Your task to perform on an android device: empty trash in google photos Image 0: 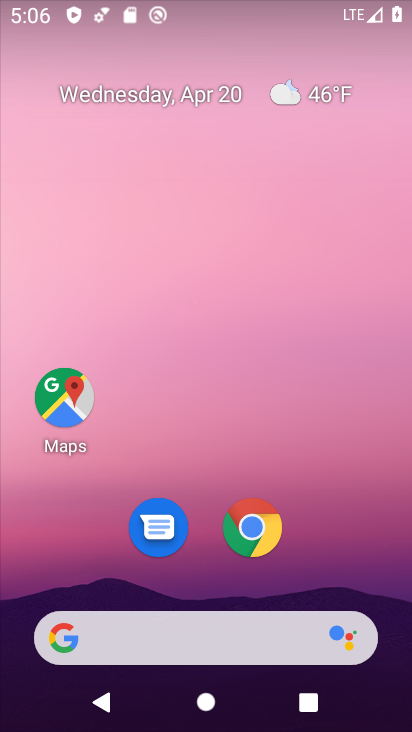
Step 0: drag from (215, 520) to (233, 89)
Your task to perform on an android device: empty trash in google photos Image 1: 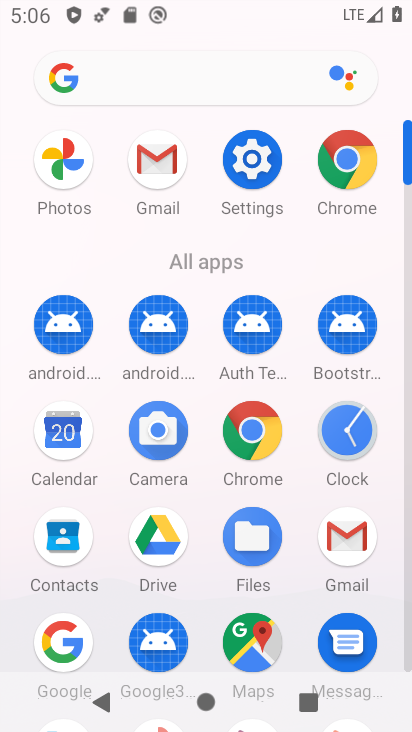
Step 1: click (70, 173)
Your task to perform on an android device: empty trash in google photos Image 2: 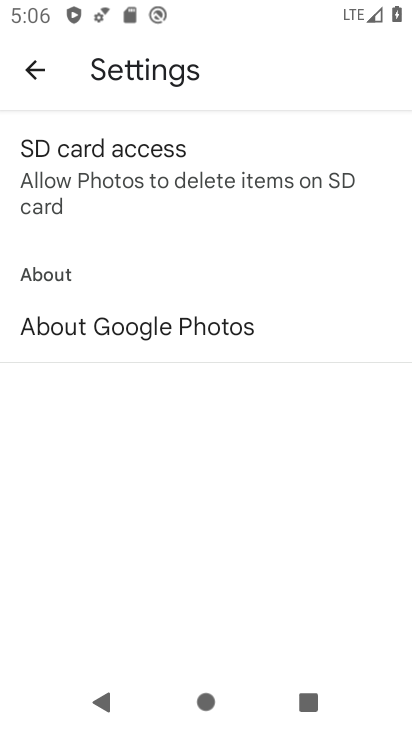
Step 2: click (41, 68)
Your task to perform on an android device: empty trash in google photos Image 3: 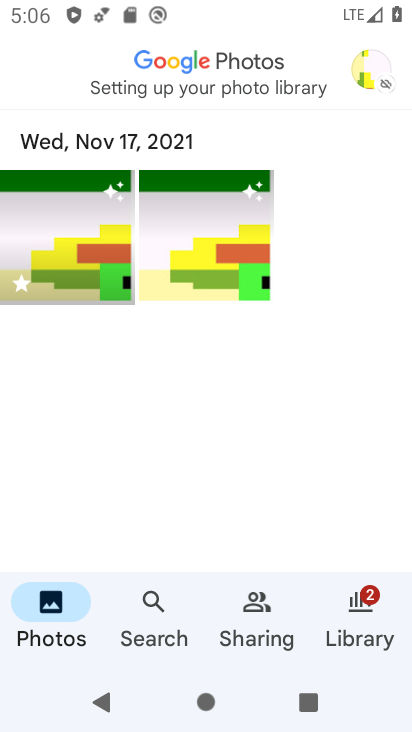
Step 3: click (385, 616)
Your task to perform on an android device: empty trash in google photos Image 4: 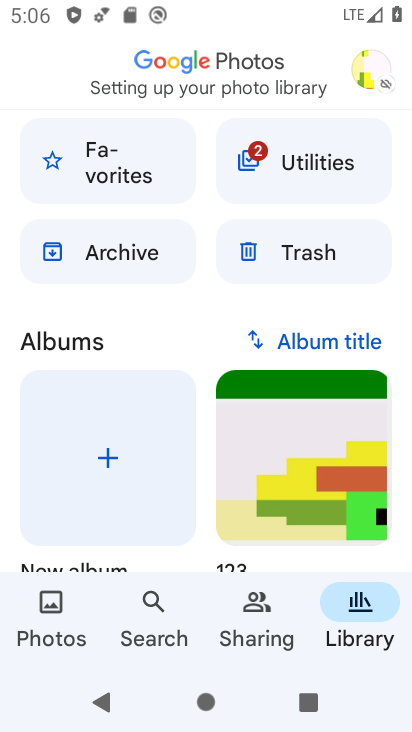
Step 4: click (283, 263)
Your task to perform on an android device: empty trash in google photos Image 5: 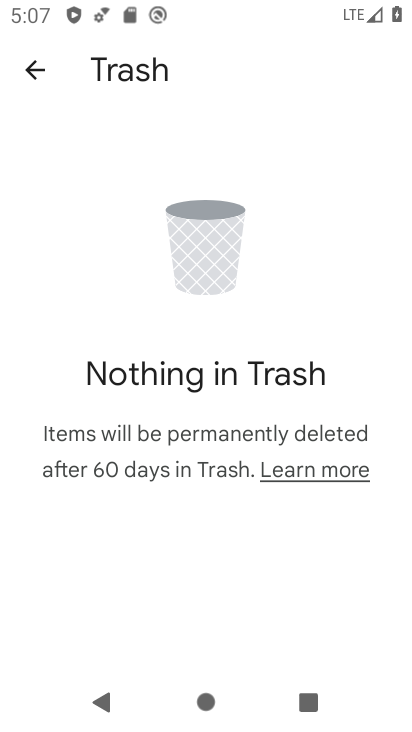
Step 5: task complete